Your task to perform on an android device: turn off smart reply in the gmail app Image 0: 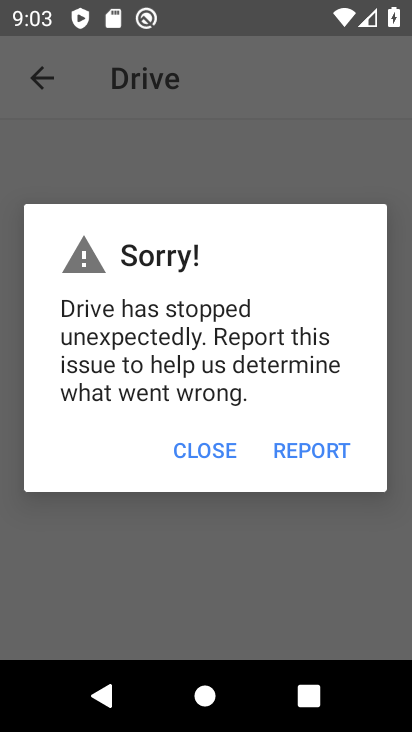
Step 0: press home button
Your task to perform on an android device: turn off smart reply in the gmail app Image 1: 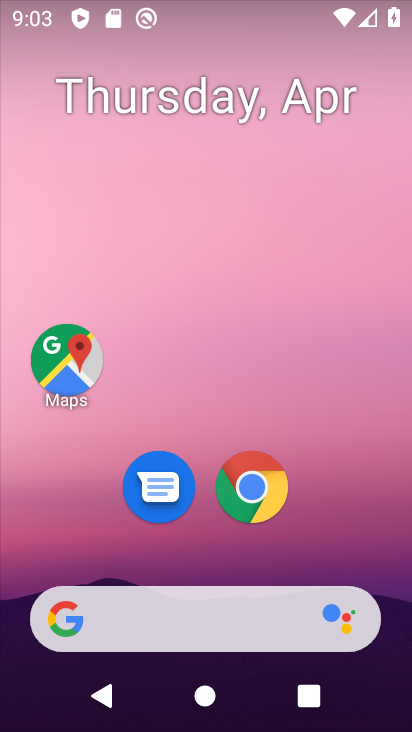
Step 1: drag from (359, 532) to (353, 95)
Your task to perform on an android device: turn off smart reply in the gmail app Image 2: 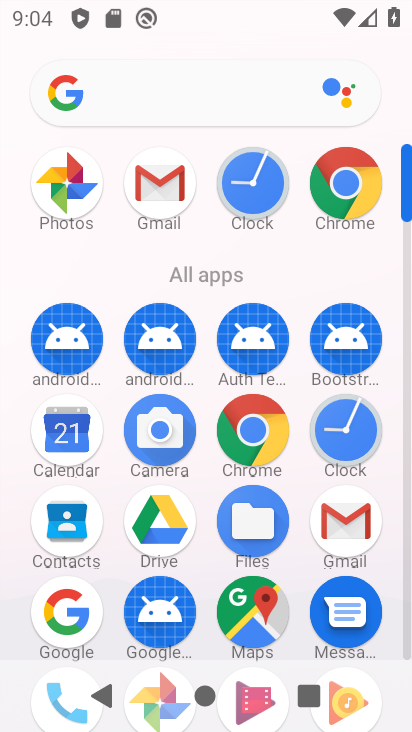
Step 2: click (359, 525)
Your task to perform on an android device: turn off smart reply in the gmail app Image 3: 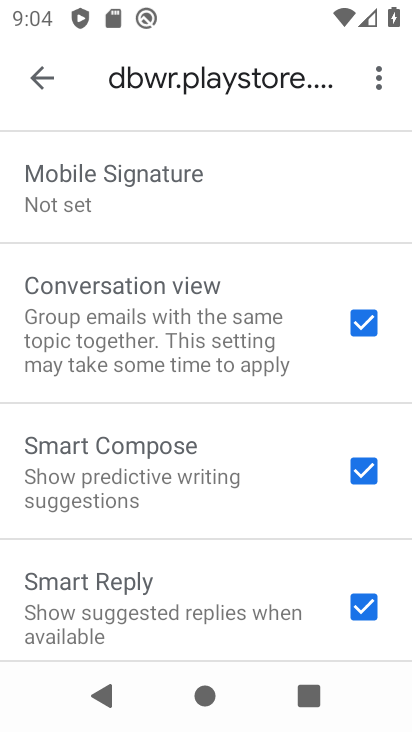
Step 3: drag from (275, 544) to (281, 361)
Your task to perform on an android device: turn off smart reply in the gmail app Image 4: 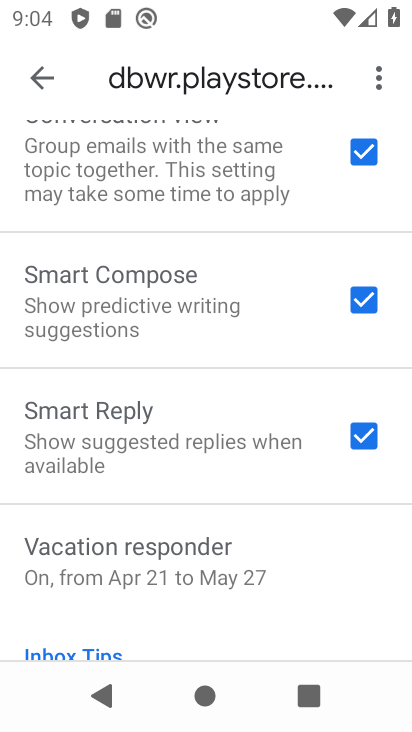
Step 4: drag from (306, 587) to (323, 356)
Your task to perform on an android device: turn off smart reply in the gmail app Image 5: 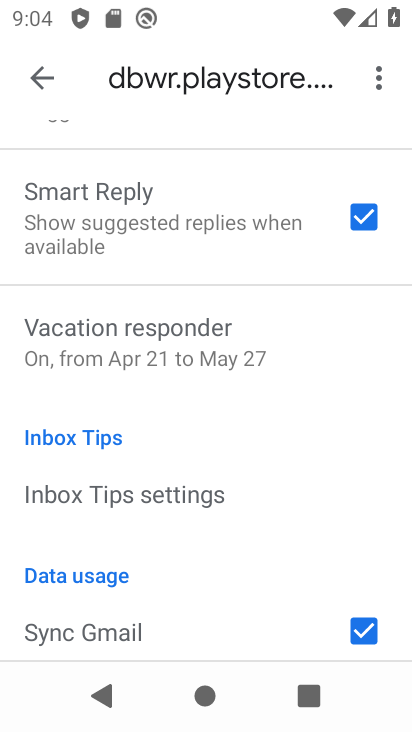
Step 5: drag from (284, 592) to (311, 201)
Your task to perform on an android device: turn off smart reply in the gmail app Image 6: 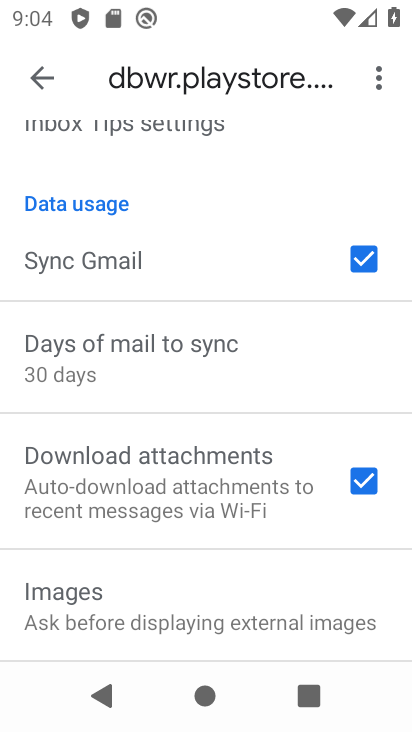
Step 6: drag from (308, 185) to (274, 408)
Your task to perform on an android device: turn off smart reply in the gmail app Image 7: 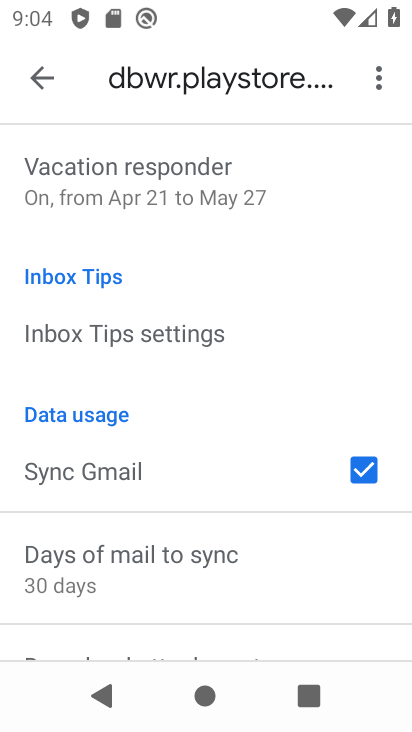
Step 7: drag from (291, 231) to (270, 408)
Your task to perform on an android device: turn off smart reply in the gmail app Image 8: 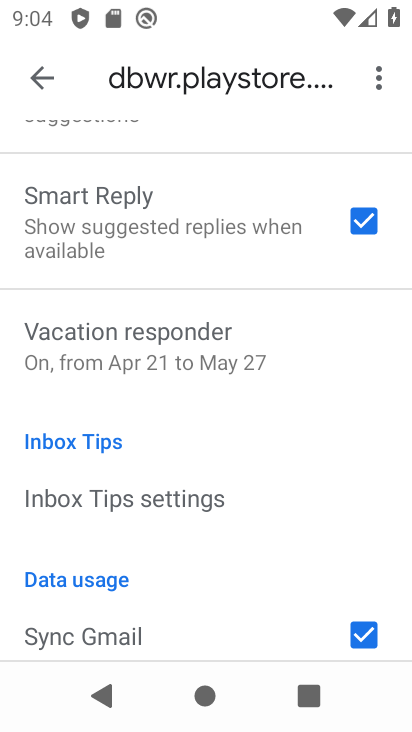
Step 8: drag from (284, 188) to (278, 437)
Your task to perform on an android device: turn off smart reply in the gmail app Image 9: 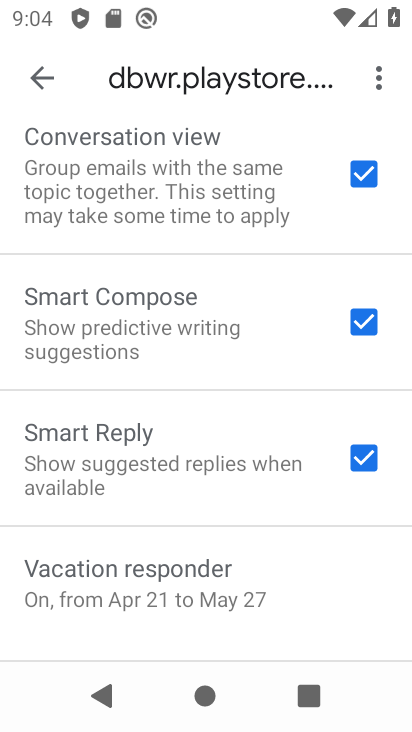
Step 9: click (372, 455)
Your task to perform on an android device: turn off smart reply in the gmail app Image 10: 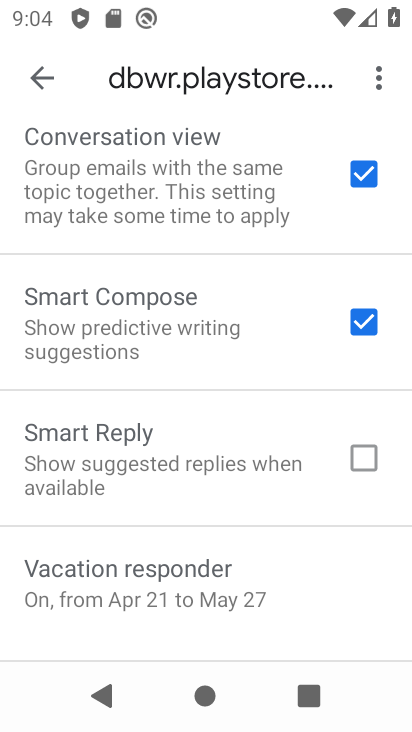
Step 10: task complete